Your task to perform on an android device: Open Youtube and go to the subscriptions tab Image 0: 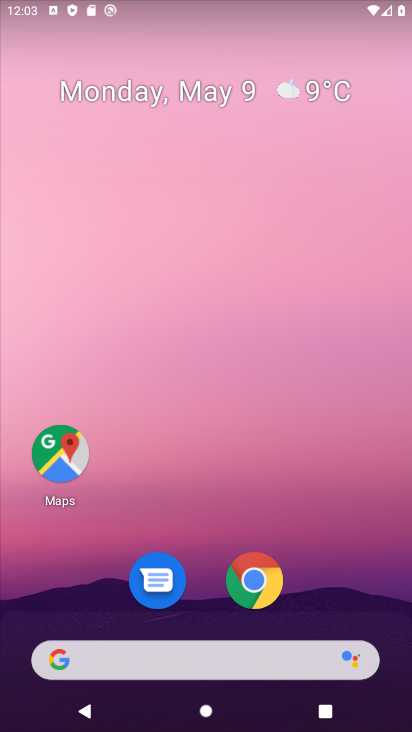
Step 0: drag from (277, 615) to (249, 206)
Your task to perform on an android device: Open Youtube and go to the subscriptions tab Image 1: 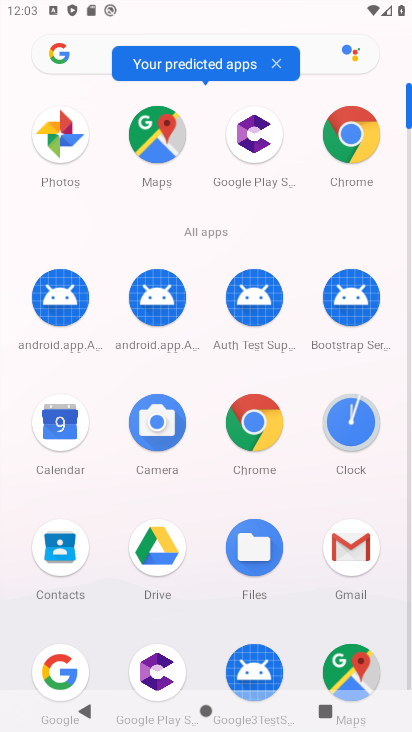
Step 1: drag from (299, 631) to (251, 95)
Your task to perform on an android device: Open Youtube and go to the subscriptions tab Image 2: 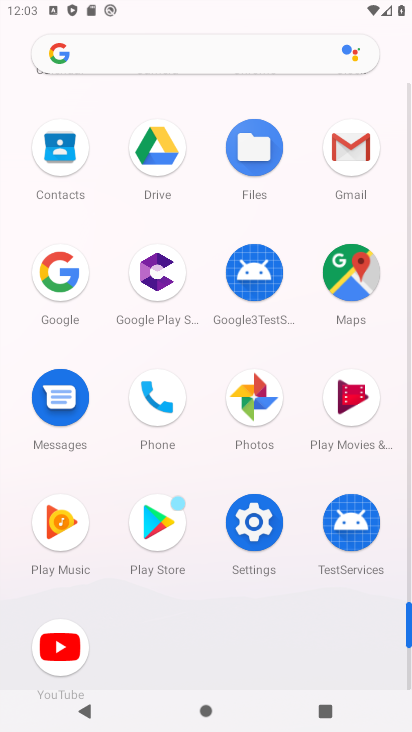
Step 2: click (67, 630)
Your task to perform on an android device: Open Youtube and go to the subscriptions tab Image 3: 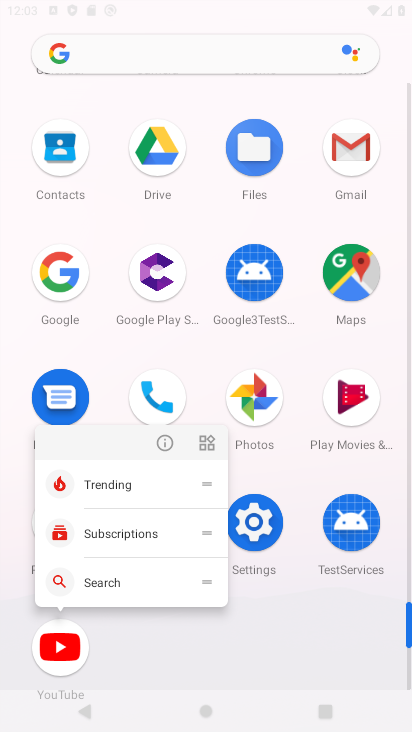
Step 3: click (63, 661)
Your task to perform on an android device: Open Youtube and go to the subscriptions tab Image 4: 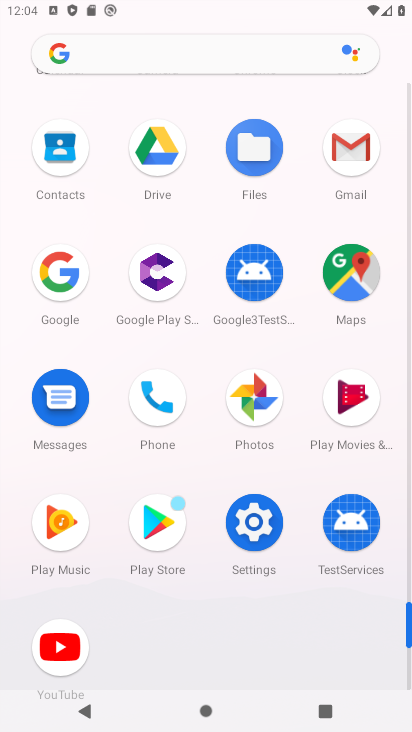
Step 4: click (70, 652)
Your task to perform on an android device: Open Youtube and go to the subscriptions tab Image 5: 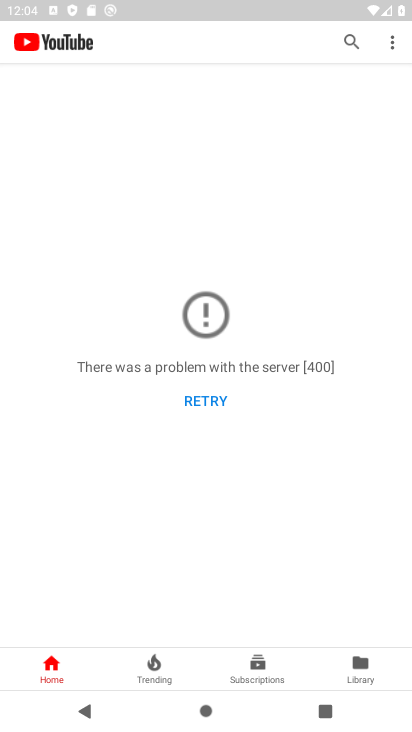
Step 5: click (265, 657)
Your task to perform on an android device: Open Youtube and go to the subscriptions tab Image 6: 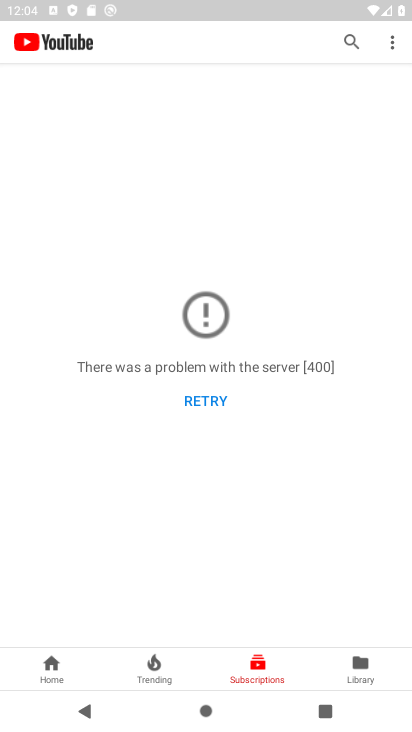
Step 6: task complete